Your task to perform on an android device: uninstall "Truecaller" Image 0: 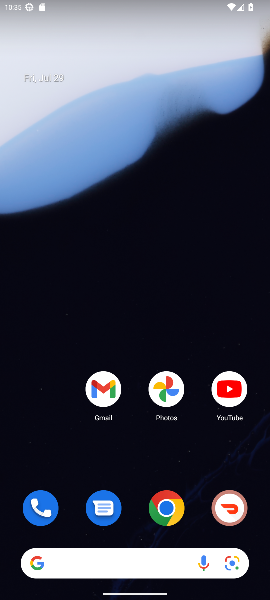
Step 0: drag from (132, 525) to (219, 129)
Your task to perform on an android device: uninstall "Truecaller" Image 1: 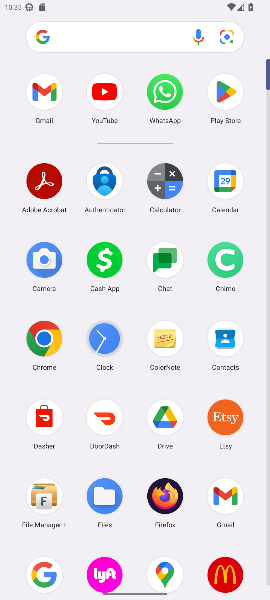
Step 1: click (221, 81)
Your task to perform on an android device: uninstall "Truecaller" Image 2: 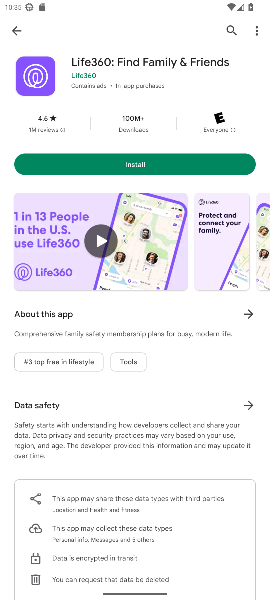
Step 2: click (233, 32)
Your task to perform on an android device: uninstall "Truecaller" Image 3: 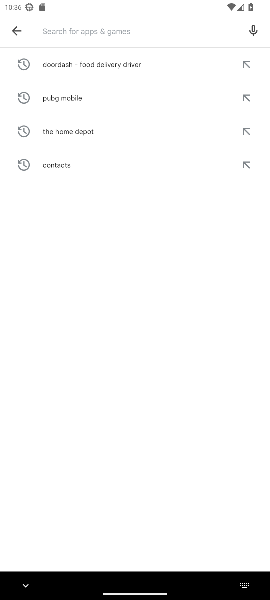
Step 3: type "truecaller"
Your task to perform on an android device: uninstall "Truecaller" Image 4: 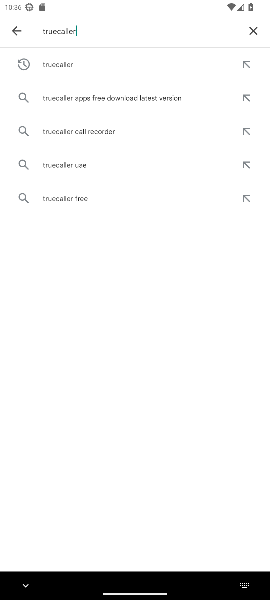
Step 4: click (50, 68)
Your task to perform on an android device: uninstall "Truecaller" Image 5: 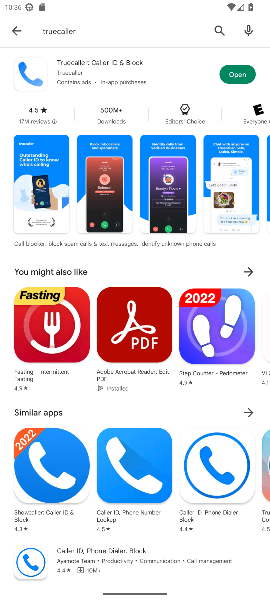
Step 5: task complete